Your task to perform on an android device: all mails in gmail Image 0: 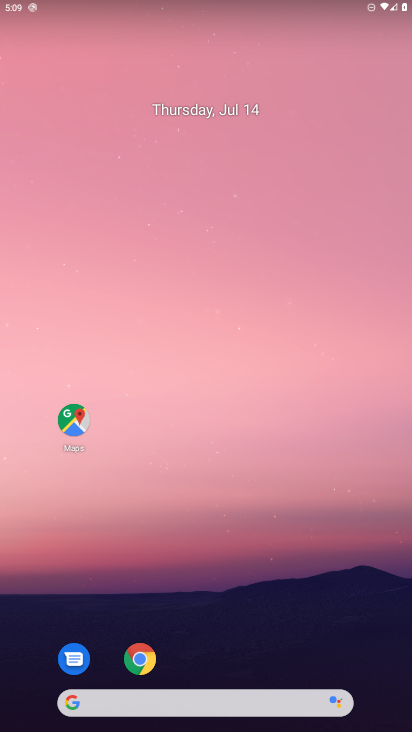
Step 0: drag from (207, 666) to (243, 141)
Your task to perform on an android device: all mails in gmail Image 1: 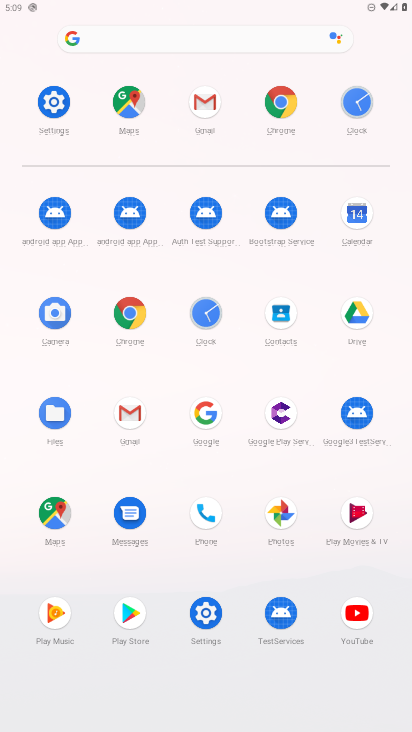
Step 1: click (124, 412)
Your task to perform on an android device: all mails in gmail Image 2: 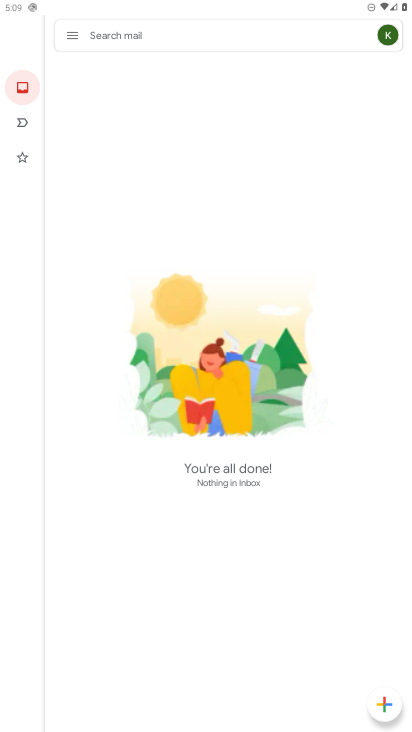
Step 2: click (67, 32)
Your task to perform on an android device: all mails in gmail Image 3: 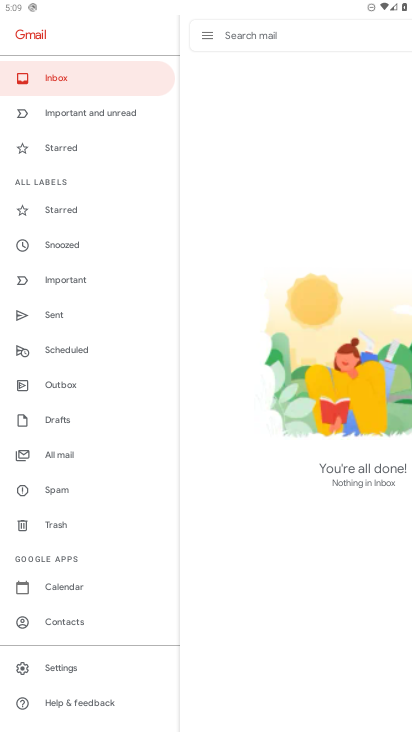
Step 3: click (76, 456)
Your task to perform on an android device: all mails in gmail Image 4: 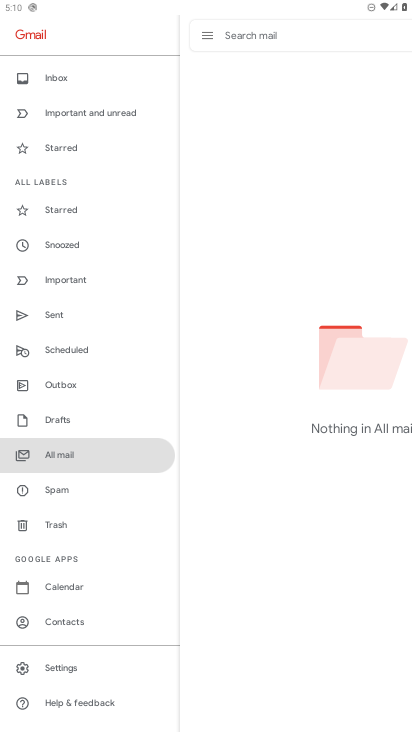
Step 4: task complete